Your task to perform on an android device: Open wifi settings Image 0: 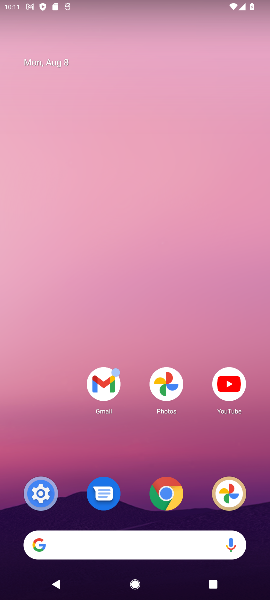
Step 0: drag from (163, 541) to (161, 145)
Your task to perform on an android device: Open wifi settings Image 1: 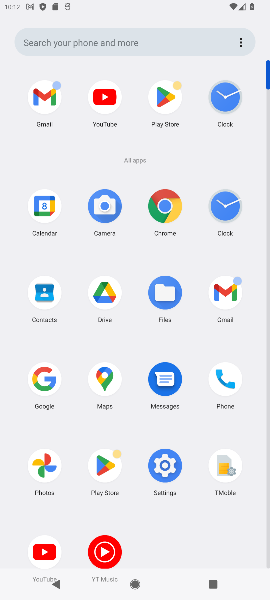
Step 1: click (161, 476)
Your task to perform on an android device: Open wifi settings Image 2: 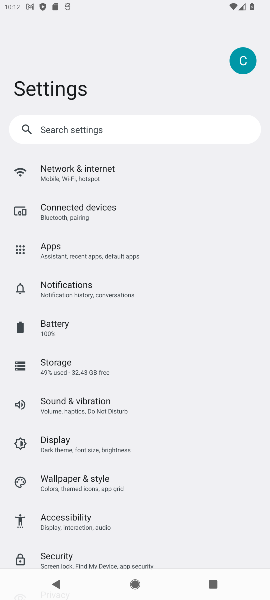
Step 2: drag from (137, 186) to (122, 376)
Your task to perform on an android device: Open wifi settings Image 3: 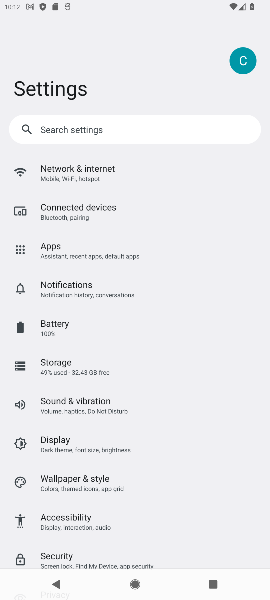
Step 3: click (126, 175)
Your task to perform on an android device: Open wifi settings Image 4: 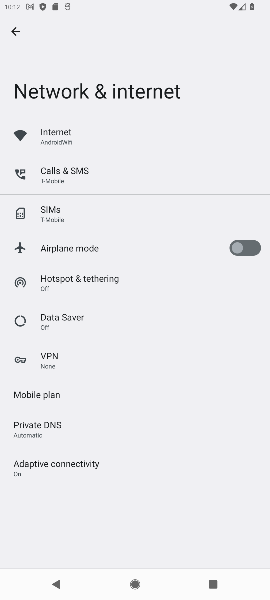
Step 4: click (68, 135)
Your task to perform on an android device: Open wifi settings Image 5: 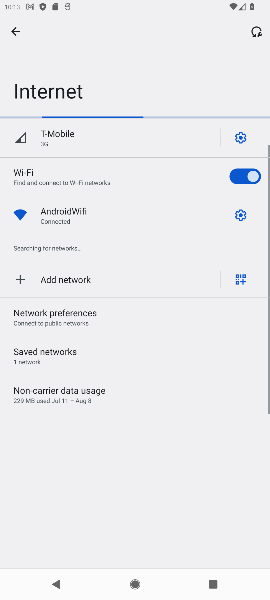
Step 5: task complete